Your task to perform on an android device: What's the weather today? Image 0: 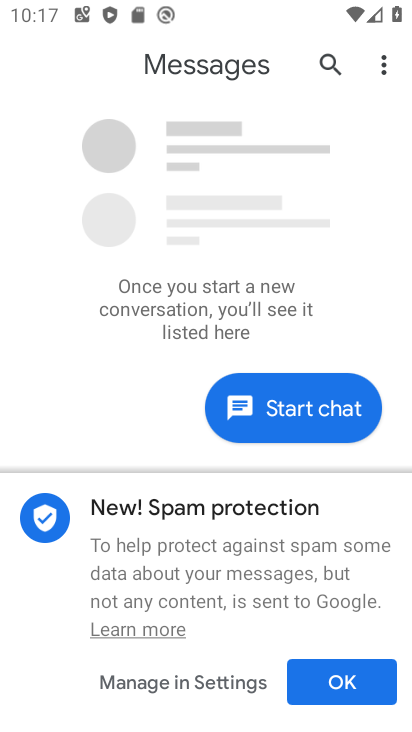
Step 0: press home button
Your task to perform on an android device: What's the weather today? Image 1: 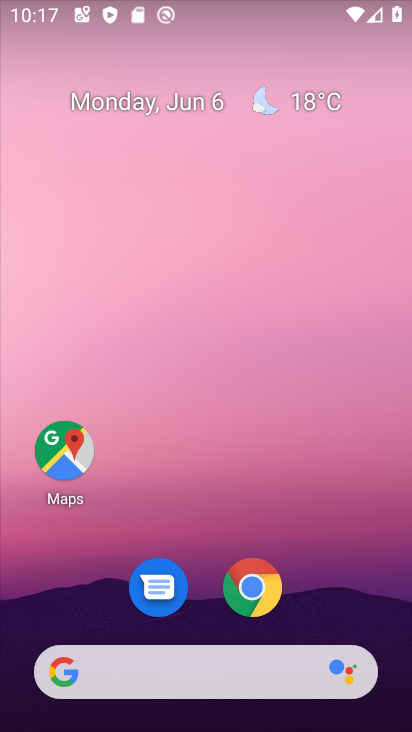
Step 1: click (208, 655)
Your task to perform on an android device: What's the weather today? Image 2: 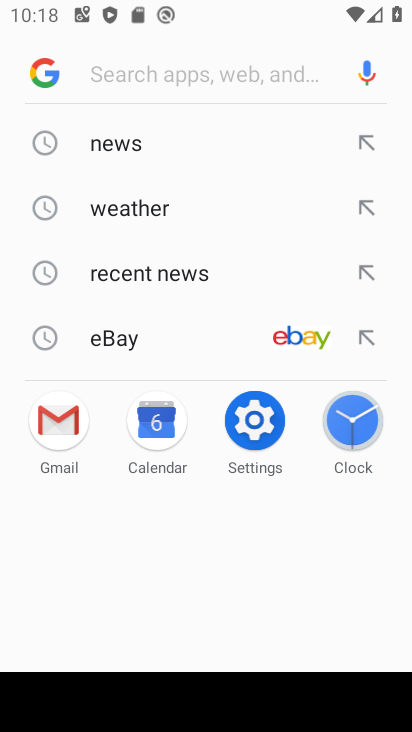
Step 2: click (180, 226)
Your task to perform on an android device: What's the weather today? Image 3: 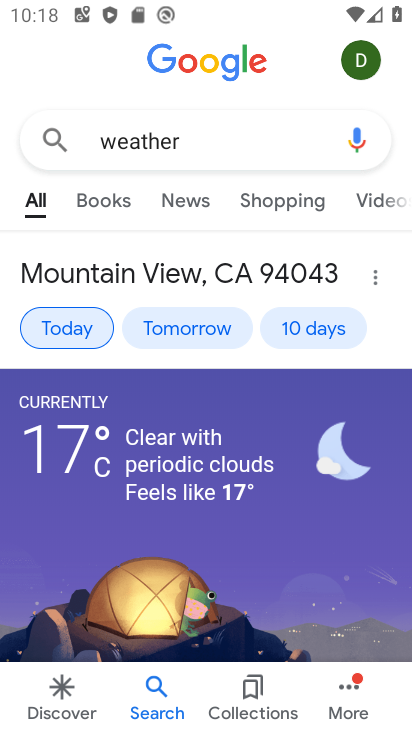
Step 3: task complete